Your task to perform on an android device: Go to Google Image 0: 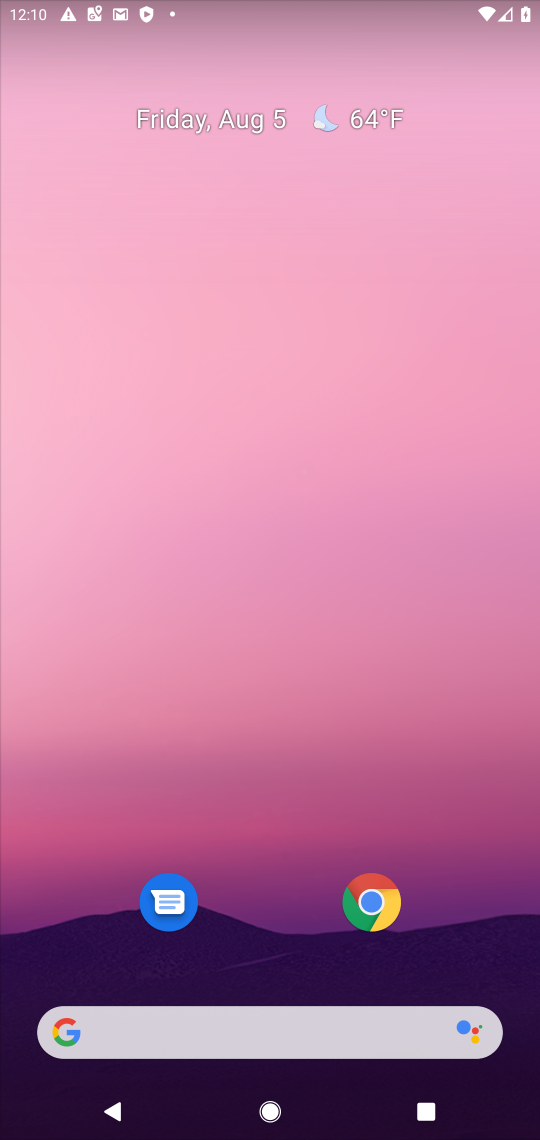
Step 0: press home button
Your task to perform on an android device: Go to Google Image 1: 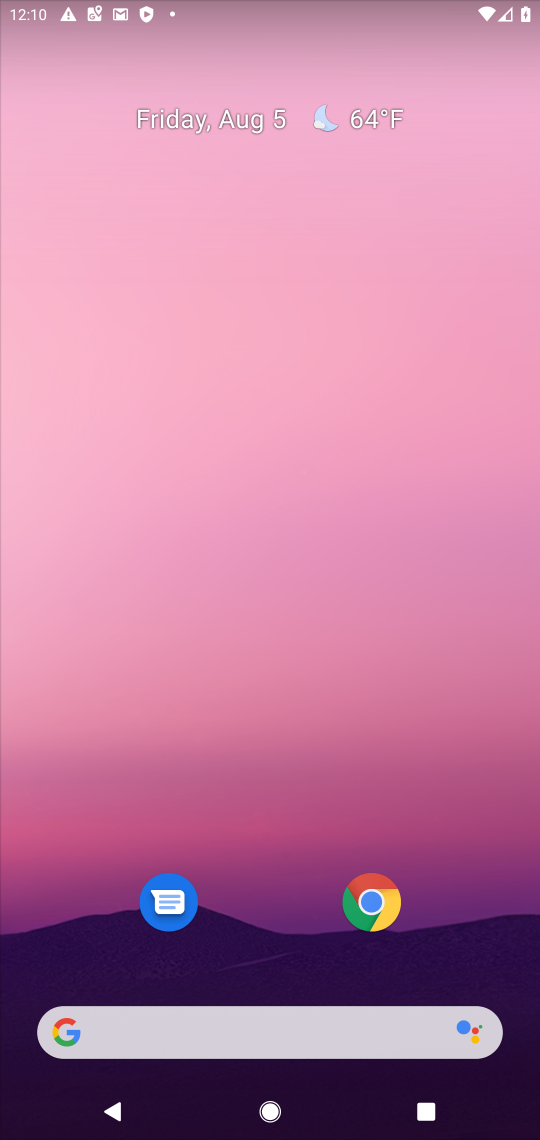
Step 1: drag from (296, 953) to (360, 149)
Your task to perform on an android device: Go to Google Image 2: 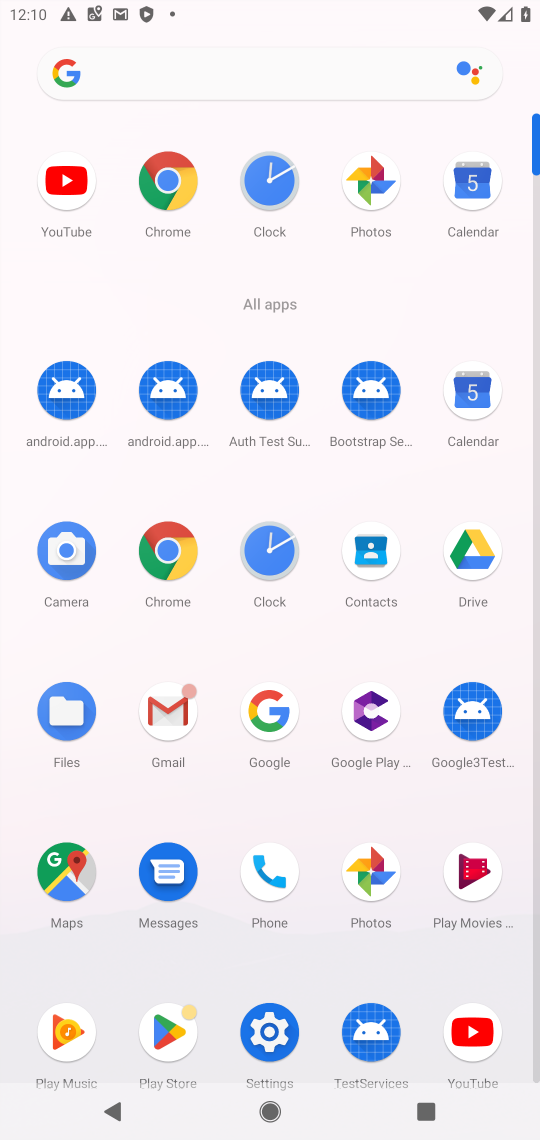
Step 2: click (264, 704)
Your task to perform on an android device: Go to Google Image 3: 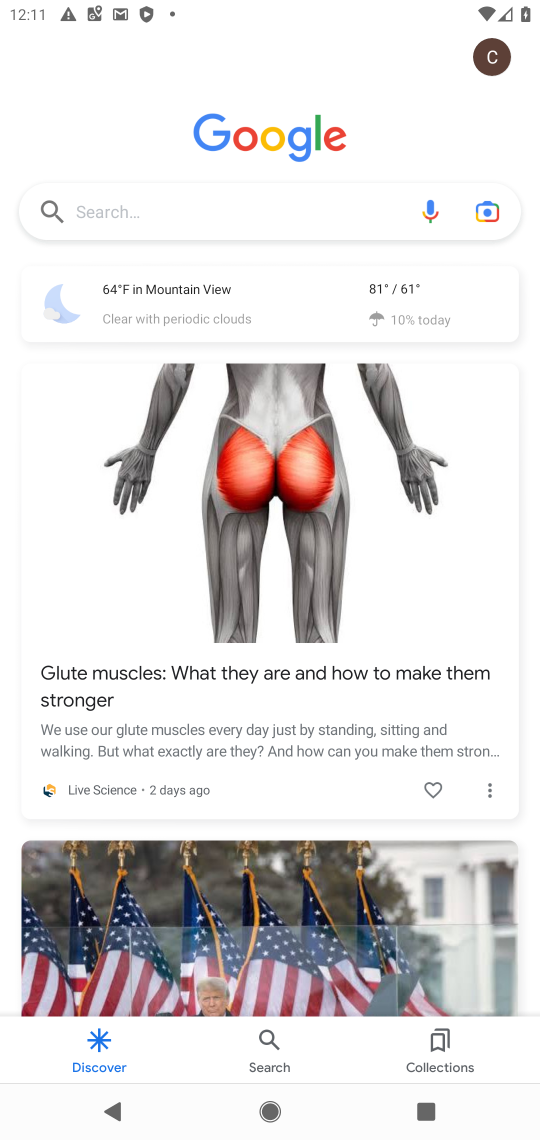
Step 3: task complete